Your task to perform on an android device: open a new tab in the chrome app Image 0: 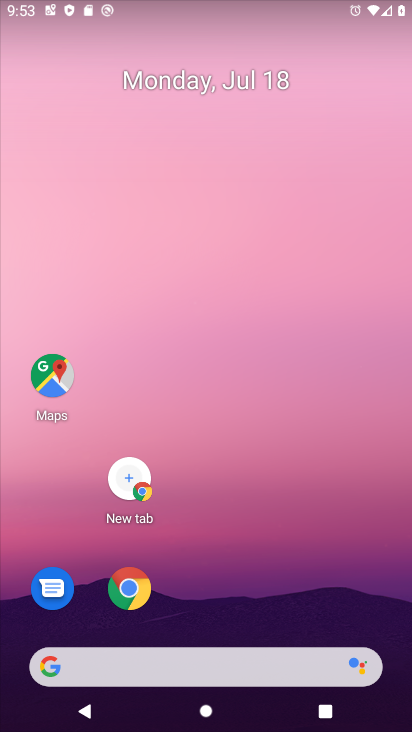
Step 0: click (130, 590)
Your task to perform on an android device: open a new tab in the chrome app Image 1: 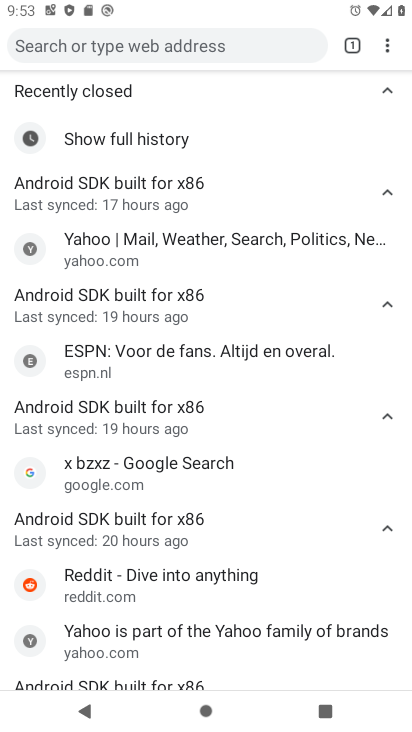
Step 1: click (362, 40)
Your task to perform on an android device: open a new tab in the chrome app Image 2: 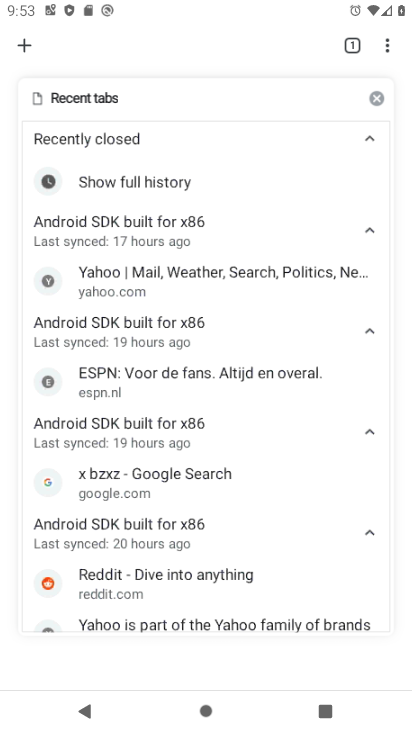
Step 2: click (26, 49)
Your task to perform on an android device: open a new tab in the chrome app Image 3: 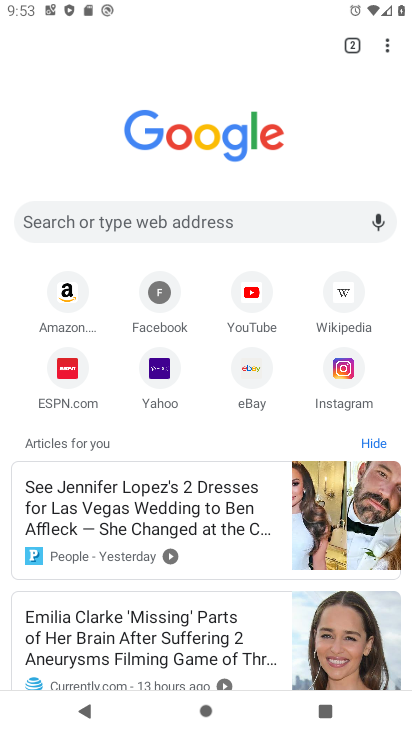
Step 3: task complete